Your task to perform on an android device: Open Wikipedia Image 0: 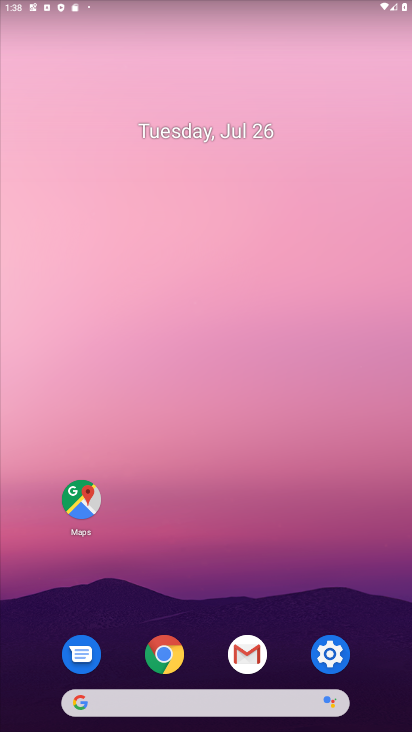
Step 0: click (175, 657)
Your task to perform on an android device: Open Wikipedia Image 1: 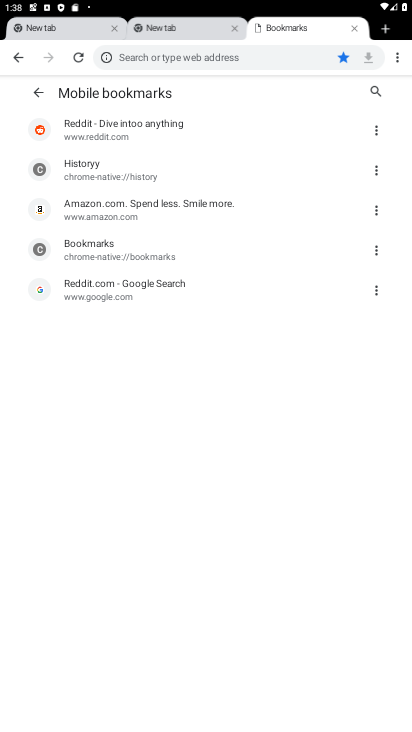
Step 1: click (387, 30)
Your task to perform on an android device: Open Wikipedia Image 2: 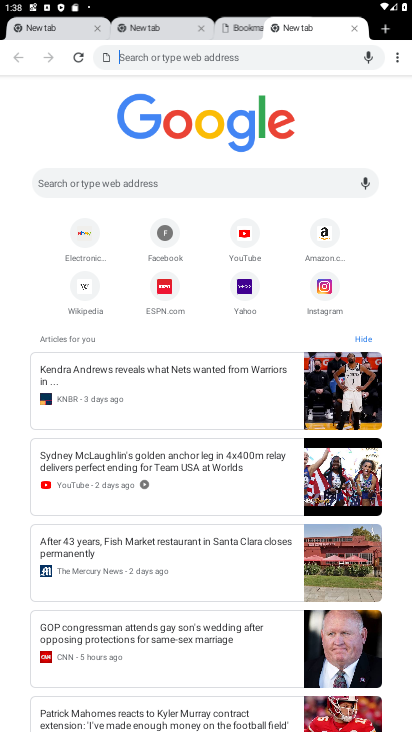
Step 2: click (85, 299)
Your task to perform on an android device: Open Wikipedia Image 3: 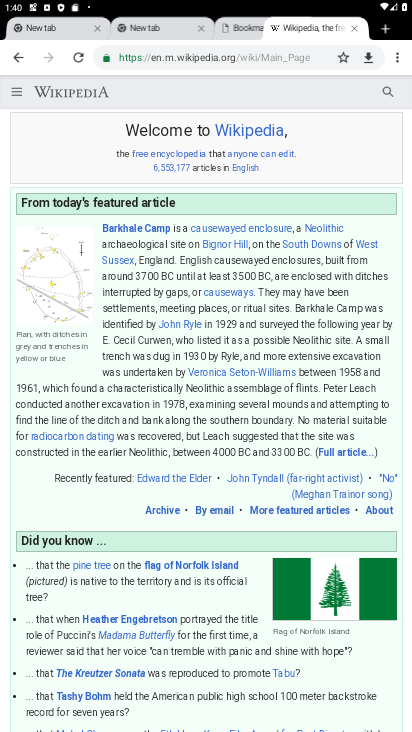
Step 3: task complete